Your task to perform on an android device: clear history in the chrome app Image 0: 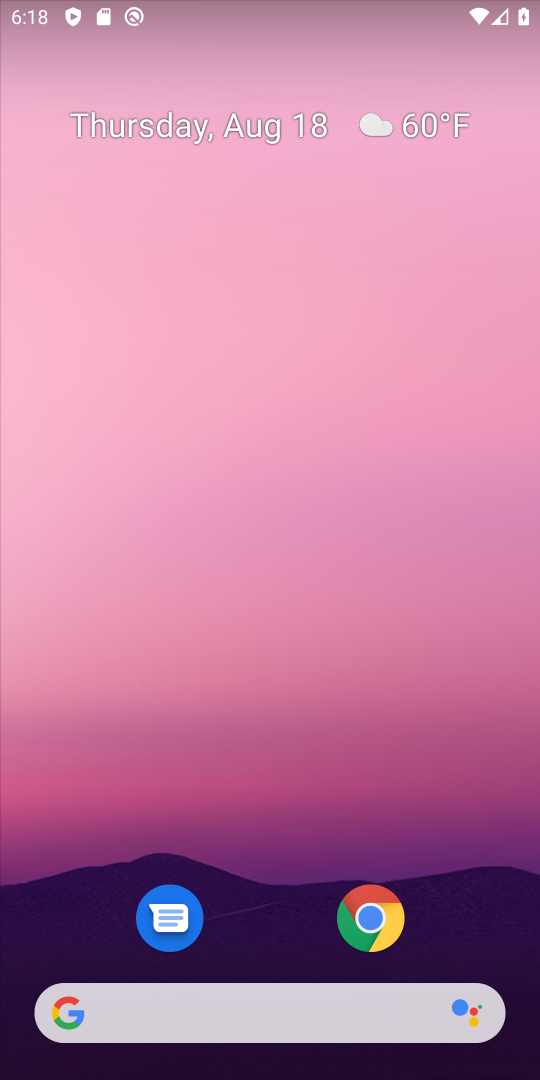
Step 0: click (368, 920)
Your task to perform on an android device: clear history in the chrome app Image 1: 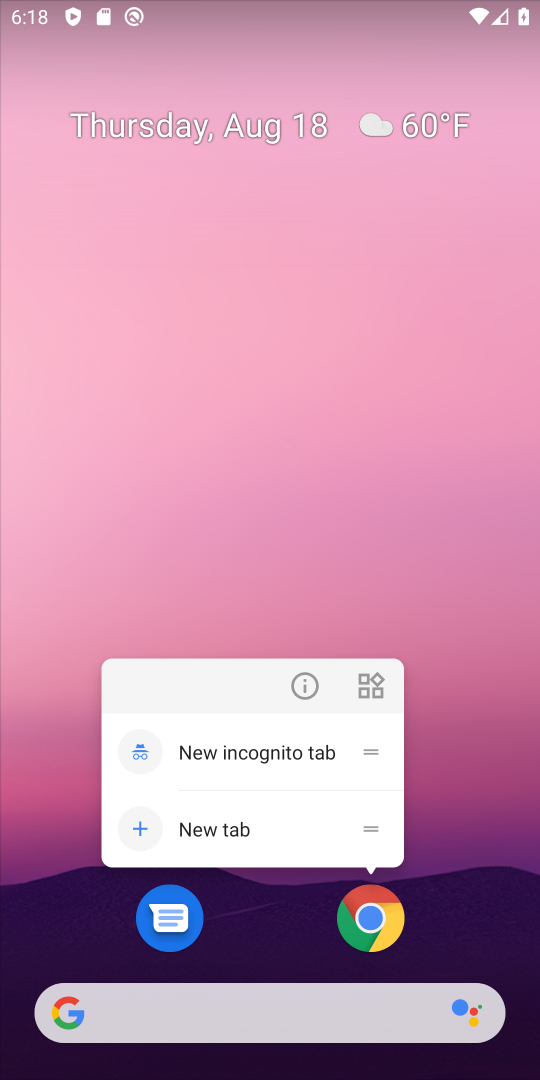
Step 1: click (368, 920)
Your task to perform on an android device: clear history in the chrome app Image 2: 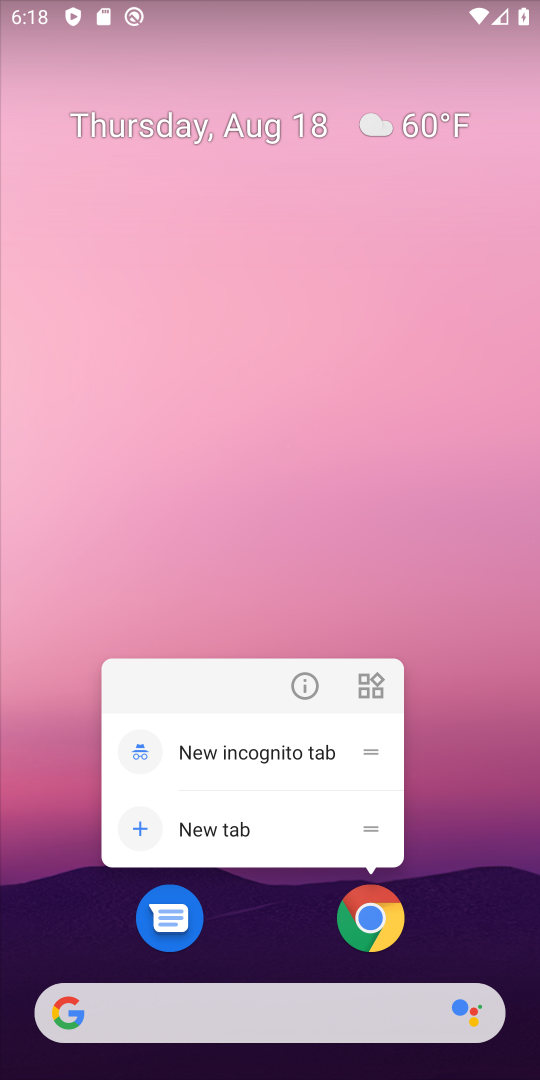
Step 2: click (368, 920)
Your task to perform on an android device: clear history in the chrome app Image 3: 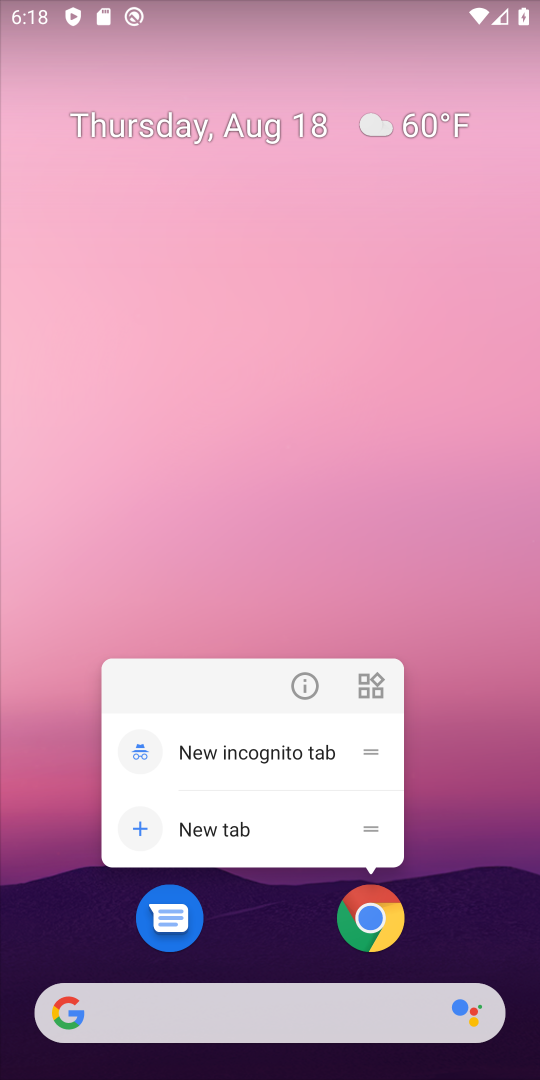
Step 3: click (368, 920)
Your task to perform on an android device: clear history in the chrome app Image 4: 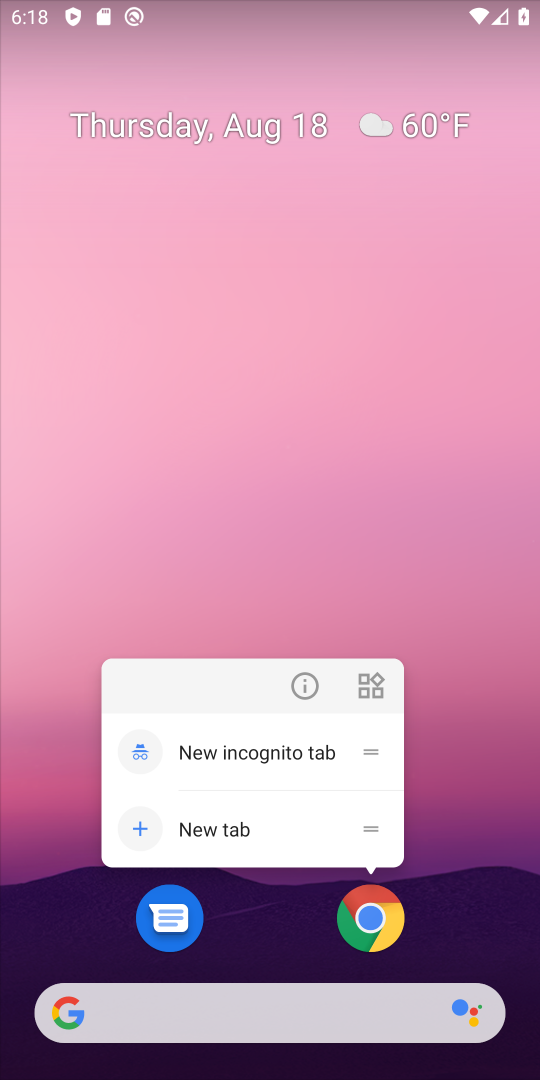
Step 4: click (384, 923)
Your task to perform on an android device: clear history in the chrome app Image 5: 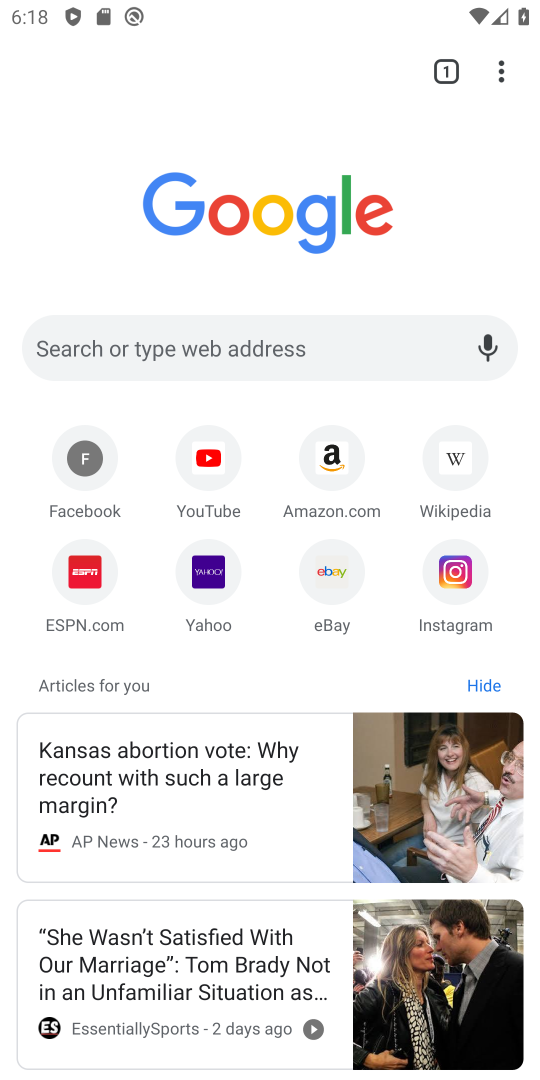
Step 5: click (512, 72)
Your task to perform on an android device: clear history in the chrome app Image 6: 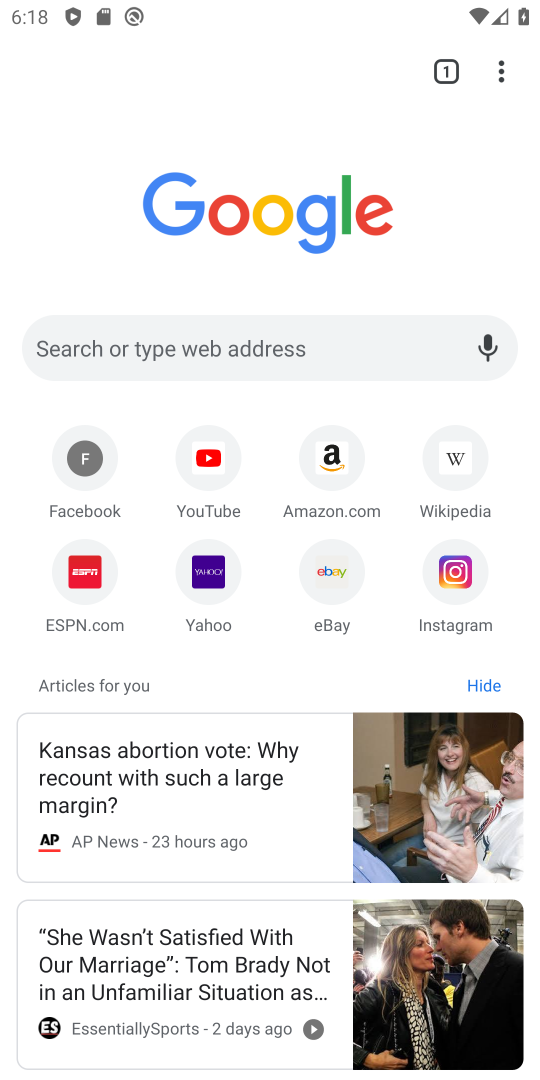
Step 6: drag from (497, 70) to (255, 404)
Your task to perform on an android device: clear history in the chrome app Image 7: 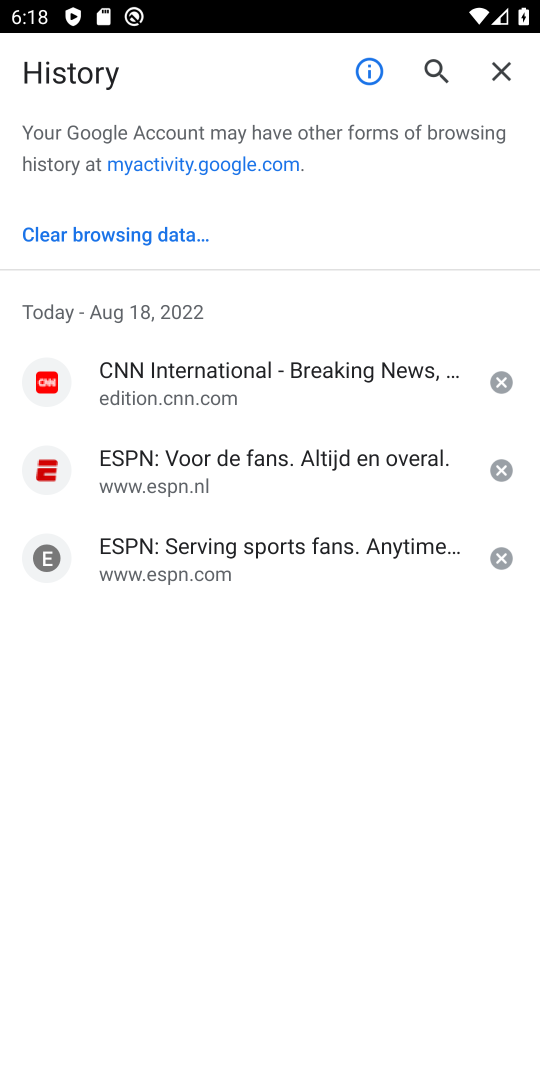
Step 7: click (108, 241)
Your task to perform on an android device: clear history in the chrome app Image 8: 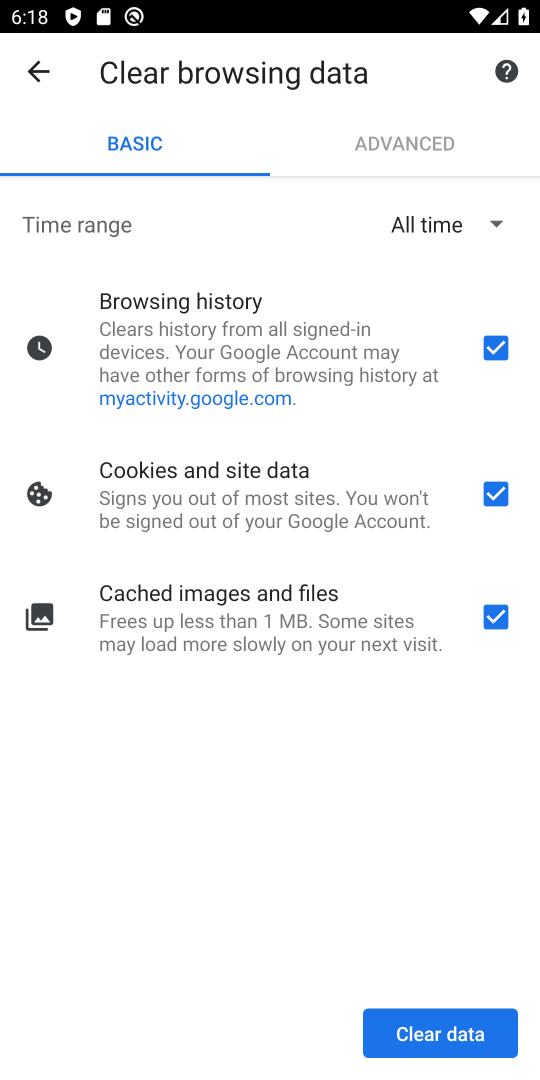
Step 8: click (487, 490)
Your task to perform on an android device: clear history in the chrome app Image 9: 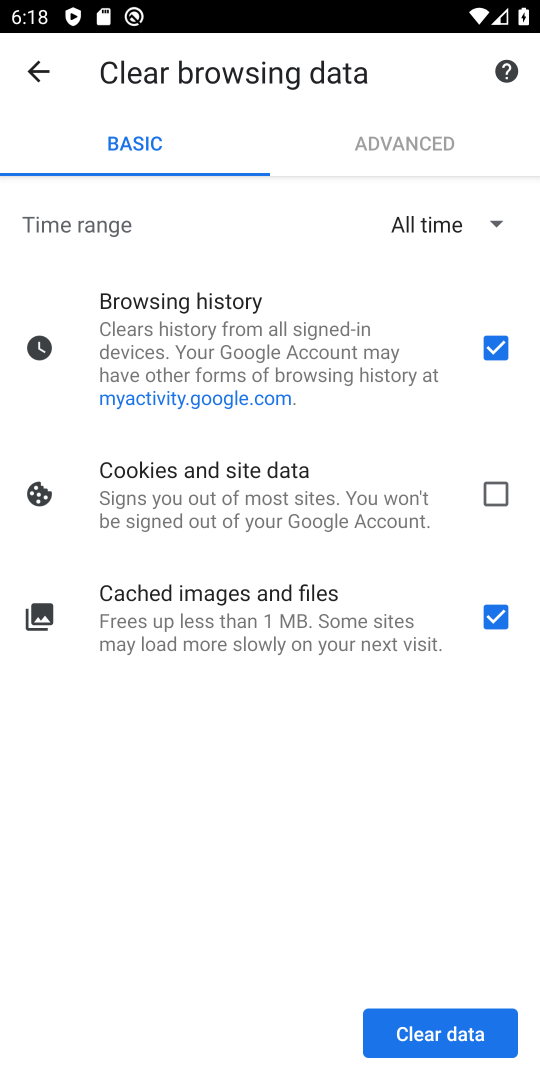
Step 9: click (488, 618)
Your task to perform on an android device: clear history in the chrome app Image 10: 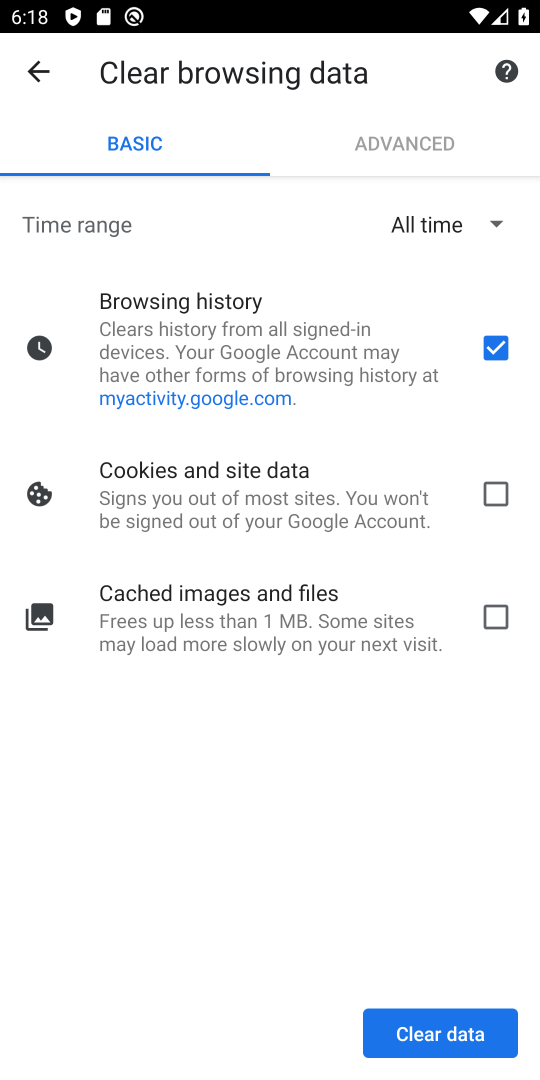
Step 10: click (438, 1048)
Your task to perform on an android device: clear history in the chrome app Image 11: 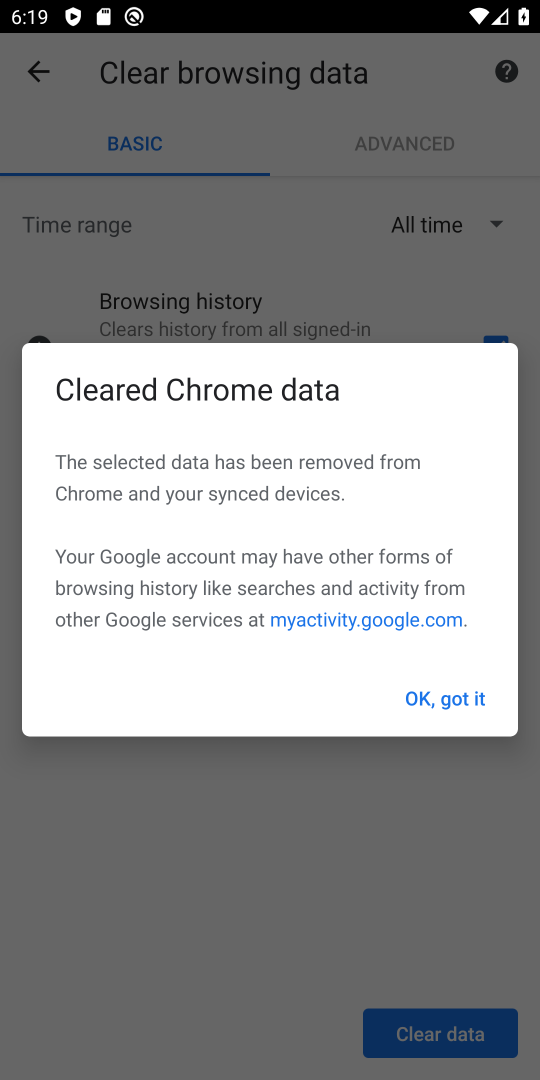
Step 11: click (452, 696)
Your task to perform on an android device: clear history in the chrome app Image 12: 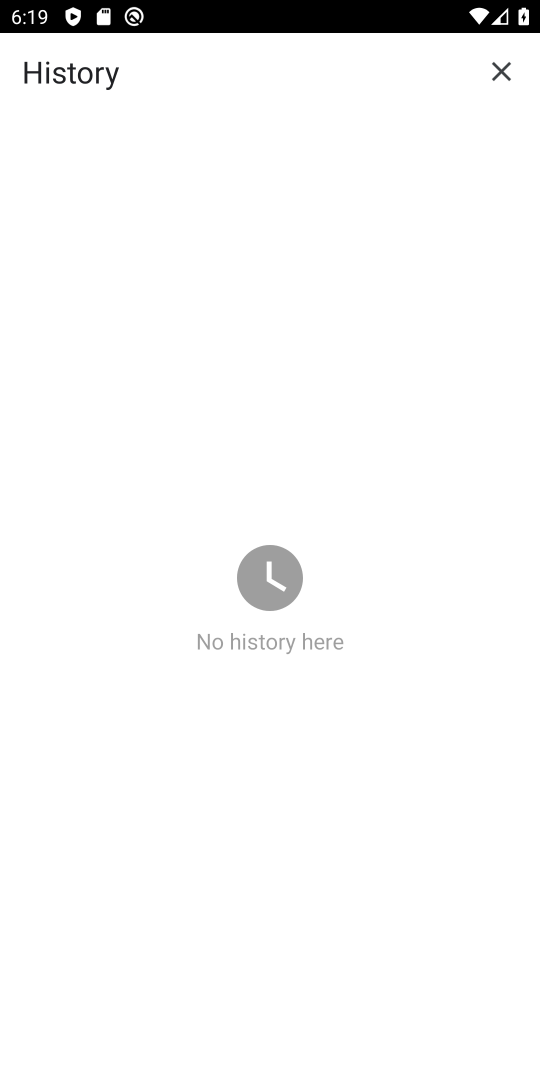
Step 12: task complete